Your task to perform on an android device: find photos in the google photos app Image 0: 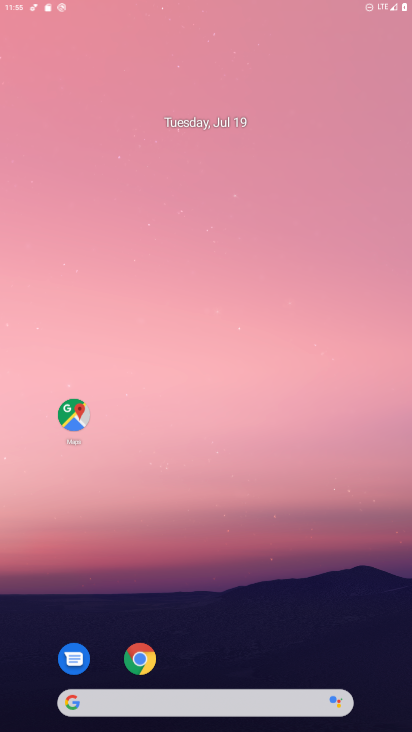
Step 0: press home button
Your task to perform on an android device: find photos in the google photos app Image 1: 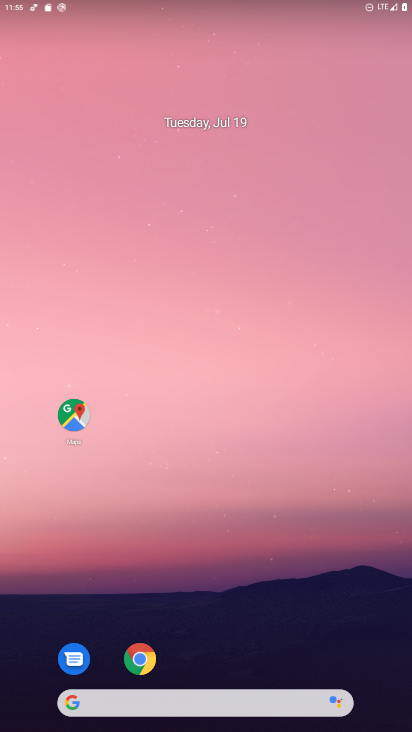
Step 1: drag from (285, 571) to (220, 87)
Your task to perform on an android device: find photos in the google photos app Image 2: 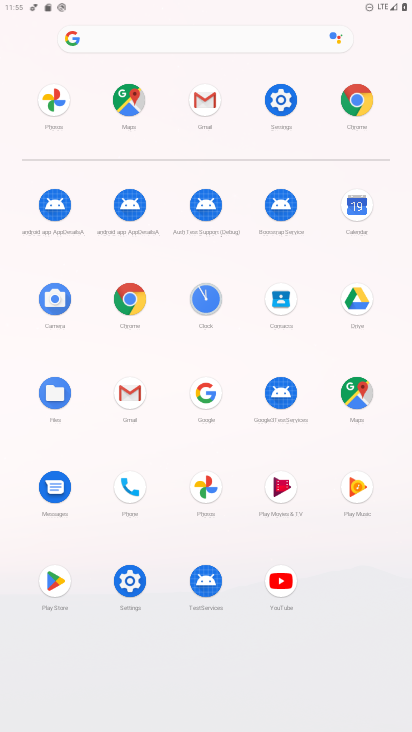
Step 2: click (200, 107)
Your task to perform on an android device: find photos in the google photos app Image 3: 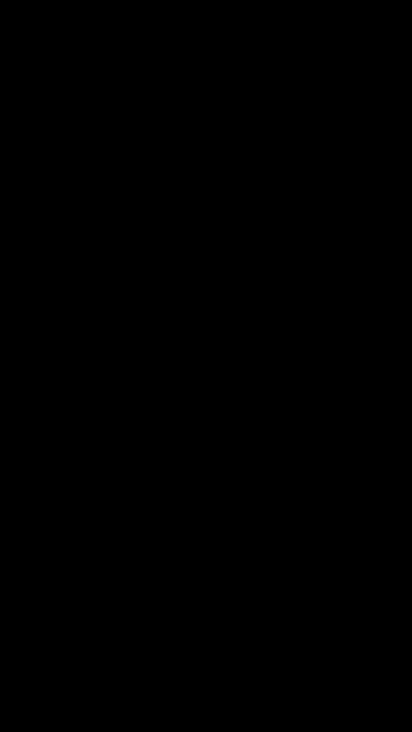
Step 3: press home button
Your task to perform on an android device: find photos in the google photos app Image 4: 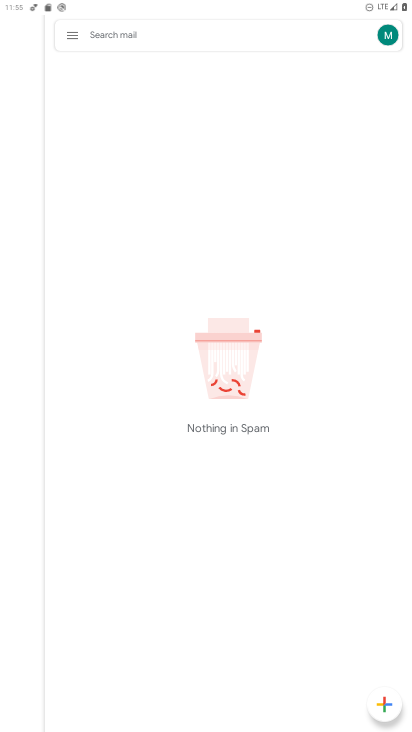
Step 4: press home button
Your task to perform on an android device: find photos in the google photos app Image 5: 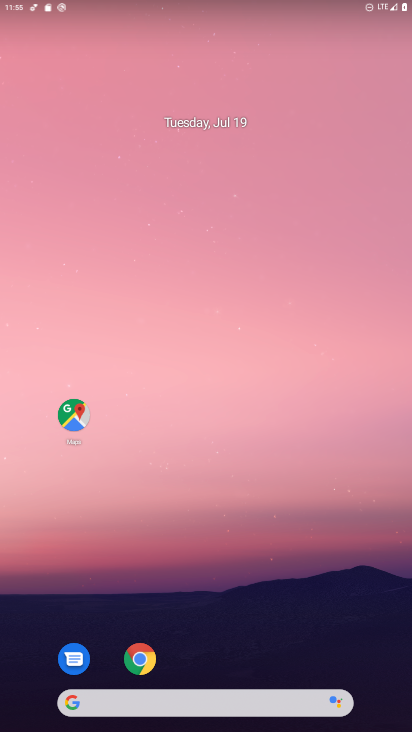
Step 5: drag from (335, 602) to (291, 39)
Your task to perform on an android device: find photos in the google photos app Image 6: 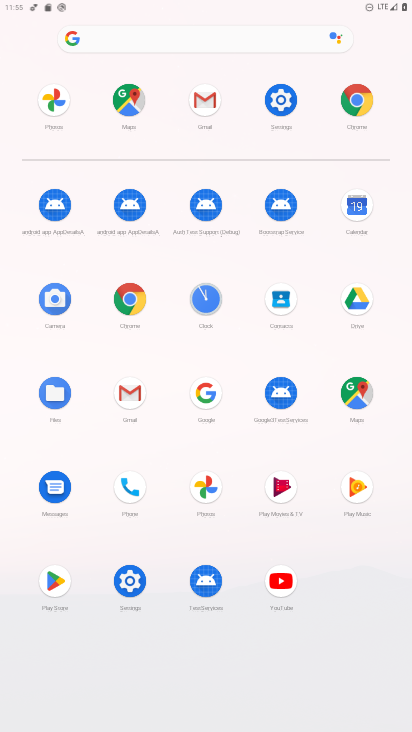
Step 6: click (214, 486)
Your task to perform on an android device: find photos in the google photos app Image 7: 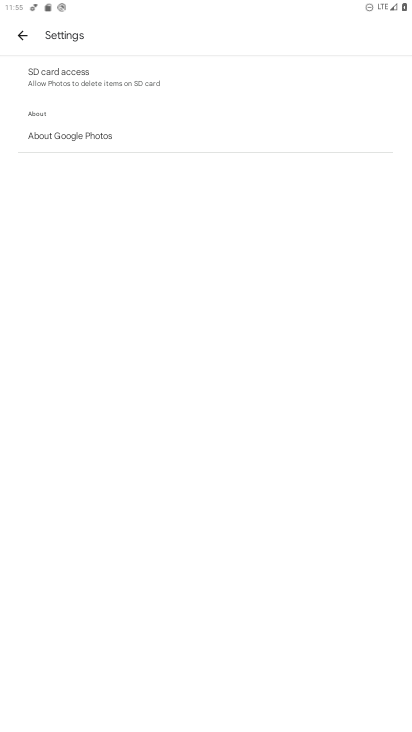
Step 7: click (18, 32)
Your task to perform on an android device: find photos in the google photos app Image 8: 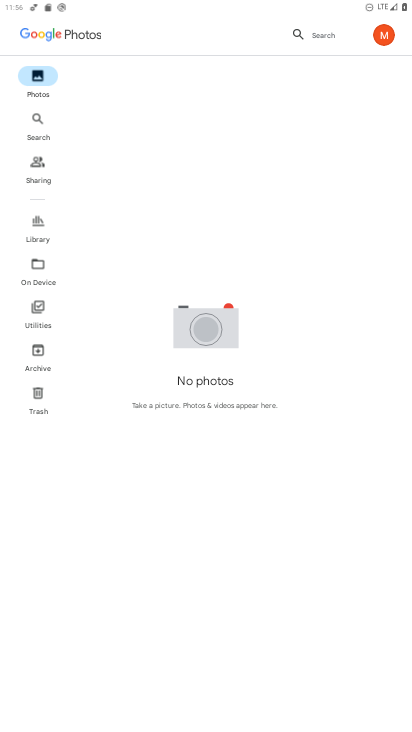
Step 8: task complete